Your task to perform on an android device: delete browsing data in the chrome app Image 0: 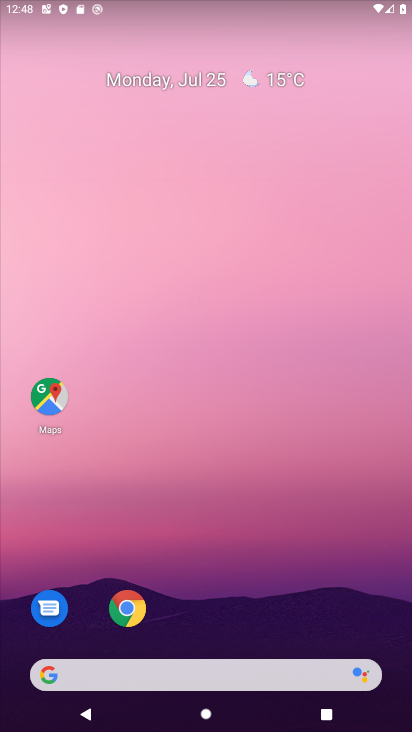
Step 0: drag from (282, 586) to (263, 50)
Your task to perform on an android device: delete browsing data in the chrome app Image 1: 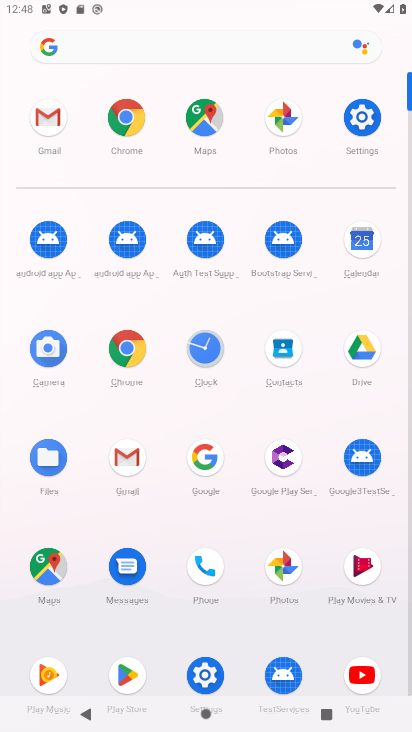
Step 1: click (128, 353)
Your task to perform on an android device: delete browsing data in the chrome app Image 2: 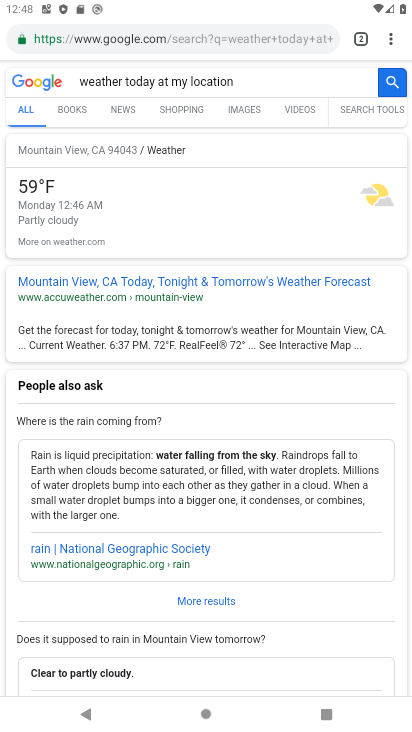
Step 2: click (394, 31)
Your task to perform on an android device: delete browsing data in the chrome app Image 3: 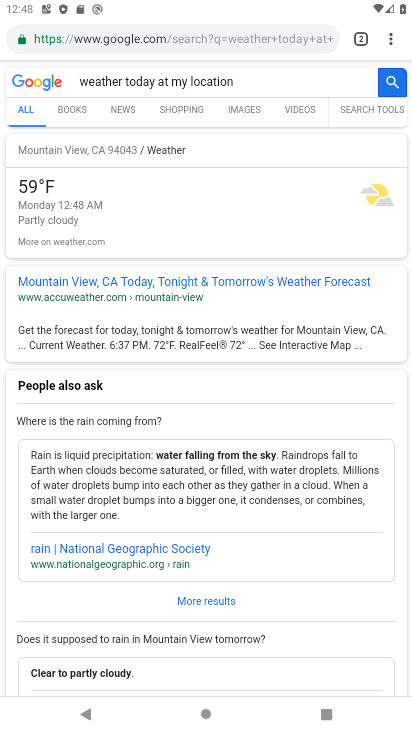
Step 3: click (390, 40)
Your task to perform on an android device: delete browsing data in the chrome app Image 4: 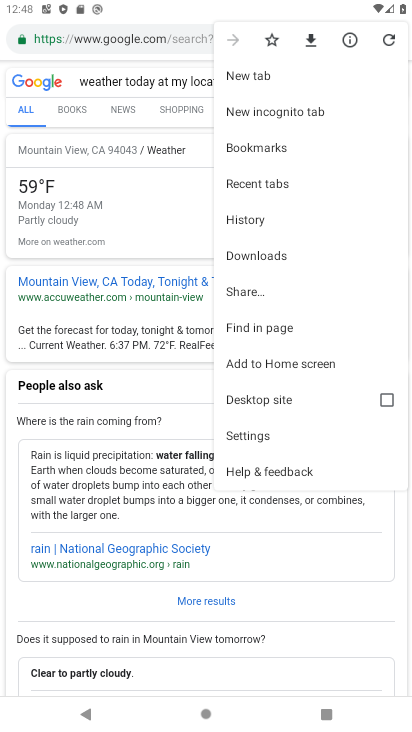
Step 4: click (290, 215)
Your task to perform on an android device: delete browsing data in the chrome app Image 5: 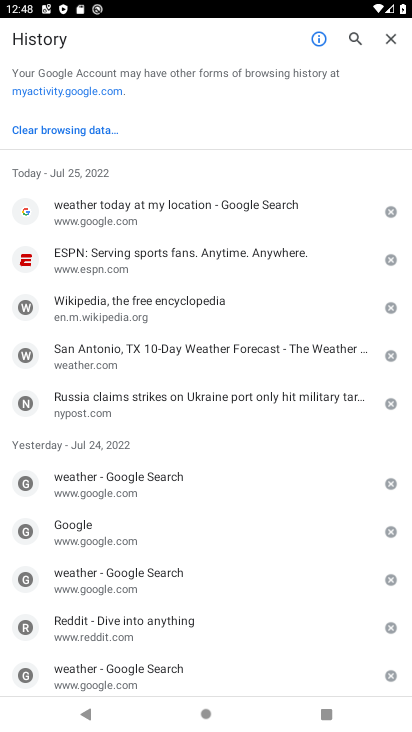
Step 5: click (72, 134)
Your task to perform on an android device: delete browsing data in the chrome app Image 6: 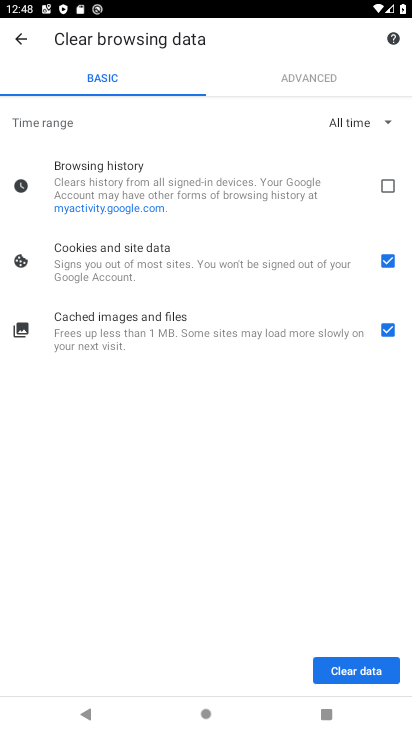
Step 6: click (381, 183)
Your task to perform on an android device: delete browsing data in the chrome app Image 7: 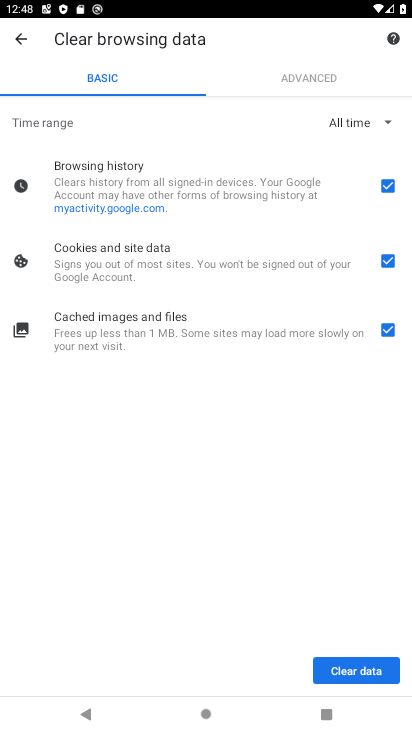
Step 7: click (384, 262)
Your task to perform on an android device: delete browsing data in the chrome app Image 8: 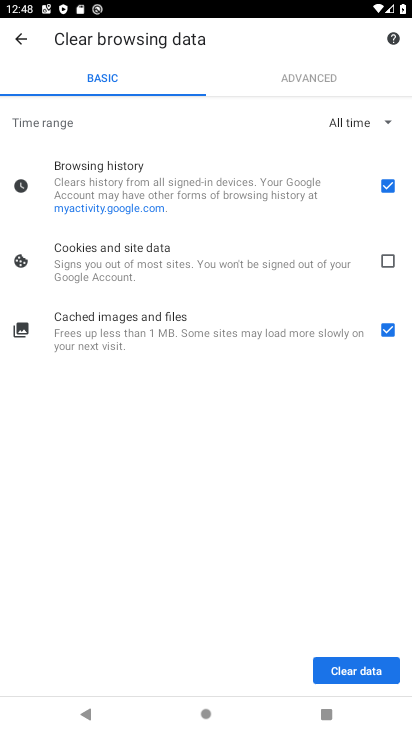
Step 8: click (385, 337)
Your task to perform on an android device: delete browsing data in the chrome app Image 9: 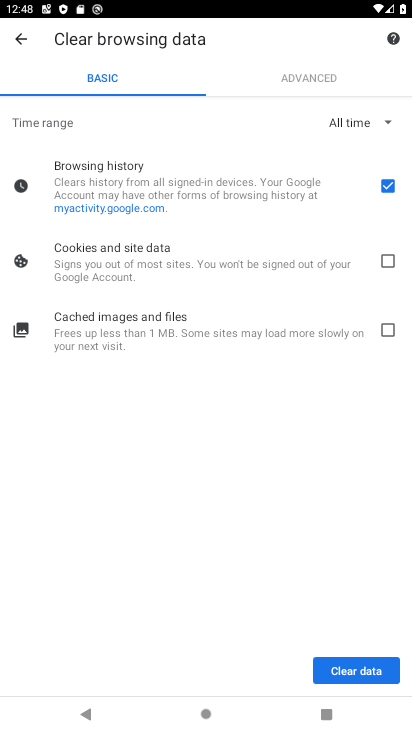
Step 9: click (345, 678)
Your task to perform on an android device: delete browsing data in the chrome app Image 10: 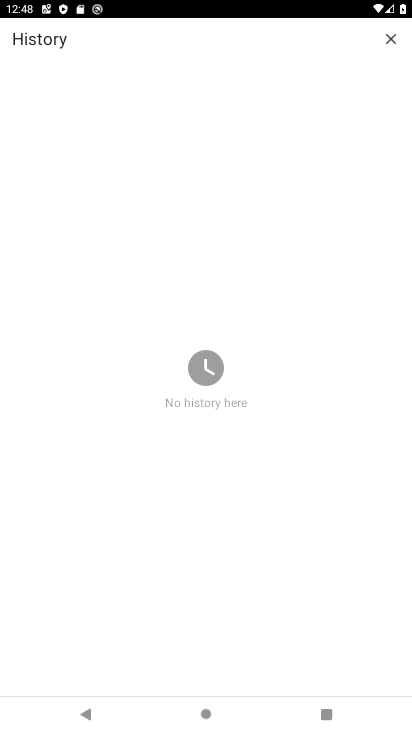
Step 10: task complete